Your task to perform on an android device: move a message to another label in the gmail app Image 0: 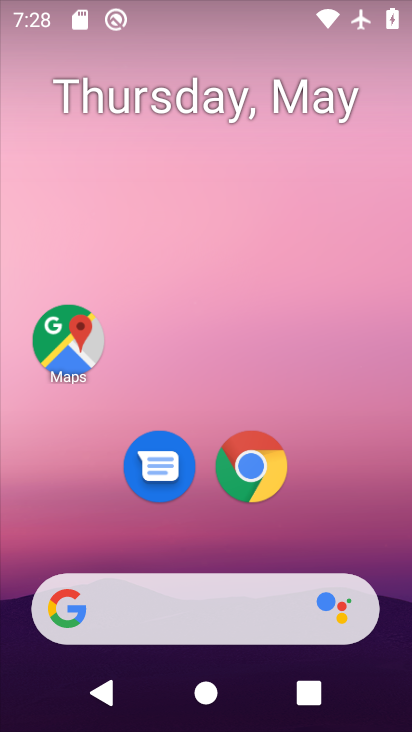
Step 0: drag from (351, 528) to (245, 4)
Your task to perform on an android device: move a message to another label in the gmail app Image 1: 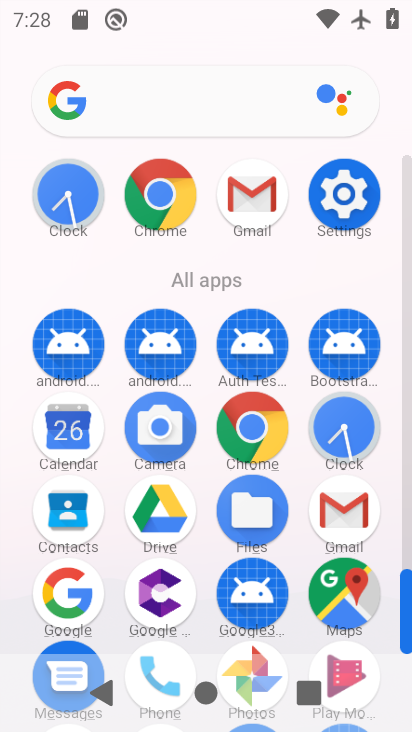
Step 1: click (271, 210)
Your task to perform on an android device: move a message to another label in the gmail app Image 2: 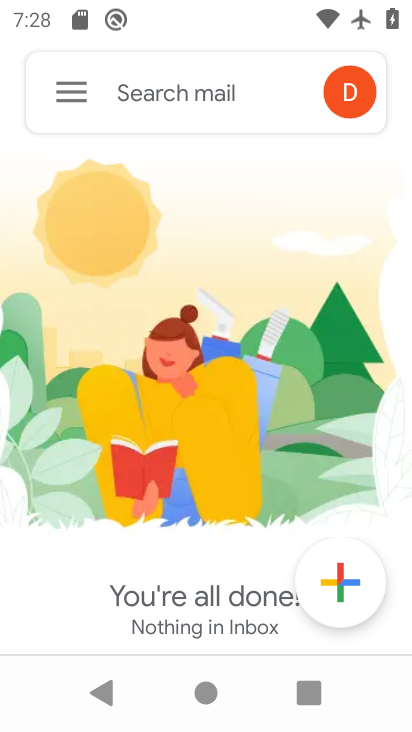
Step 2: click (69, 91)
Your task to perform on an android device: move a message to another label in the gmail app Image 3: 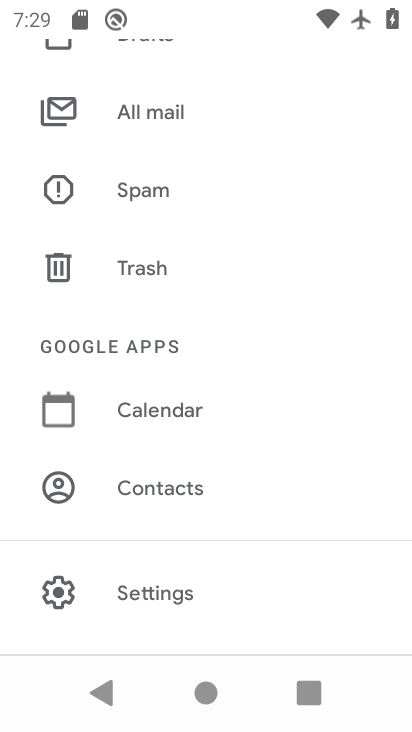
Step 3: click (173, 124)
Your task to perform on an android device: move a message to another label in the gmail app Image 4: 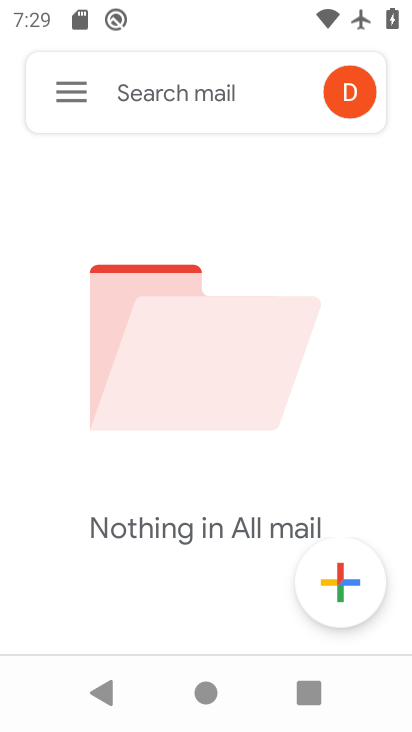
Step 4: click (92, 83)
Your task to perform on an android device: move a message to another label in the gmail app Image 5: 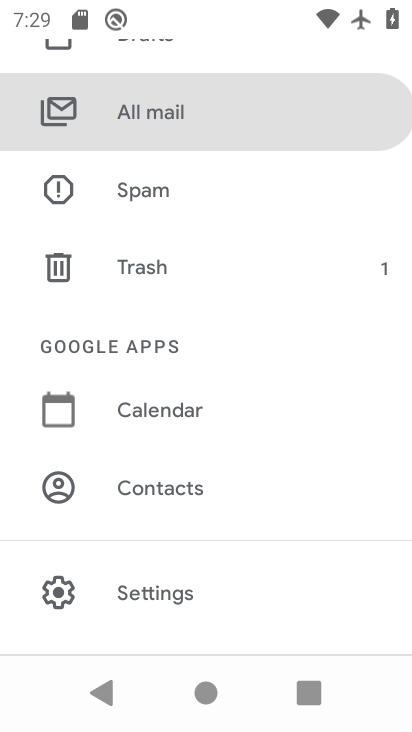
Step 5: click (179, 276)
Your task to perform on an android device: move a message to another label in the gmail app Image 6: 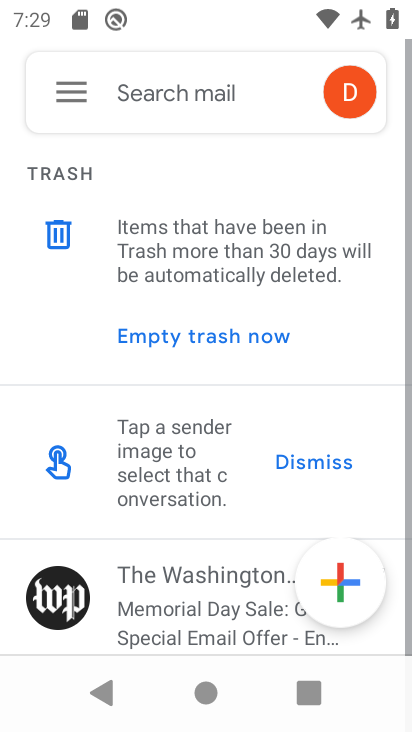
Step 6: click (179, 276)
Your task to perform on an android device: move a message to another label in the gmail app Image 7: 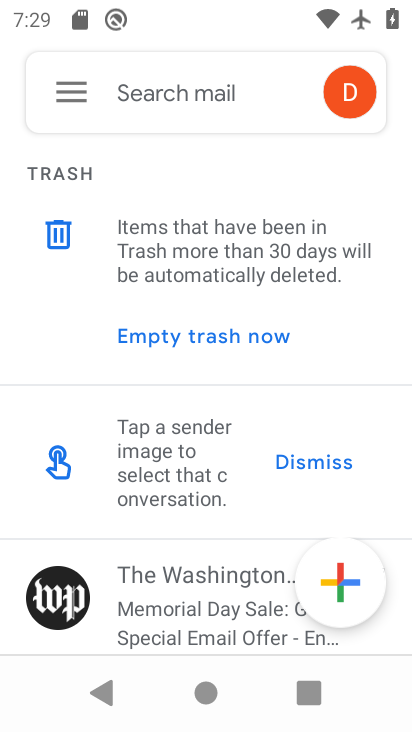
Step 7: click (176, 597)
Your task to perform on an android device: move a message to another label in the gmail app Image 8: 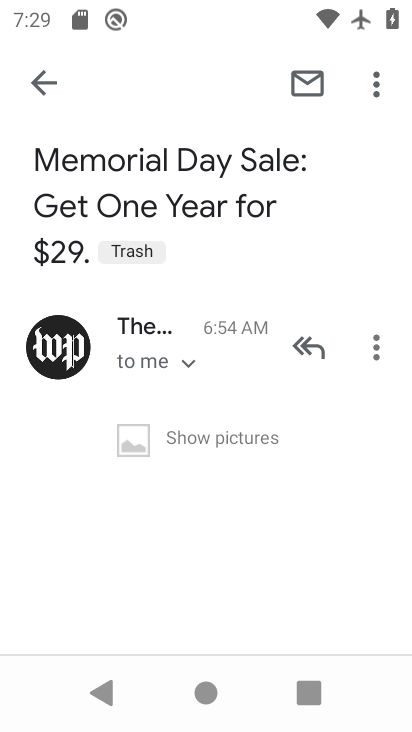
Step 8: click (373, 97)
Your task to perform on an android device: move a message to another label in the gmail app Image 9: 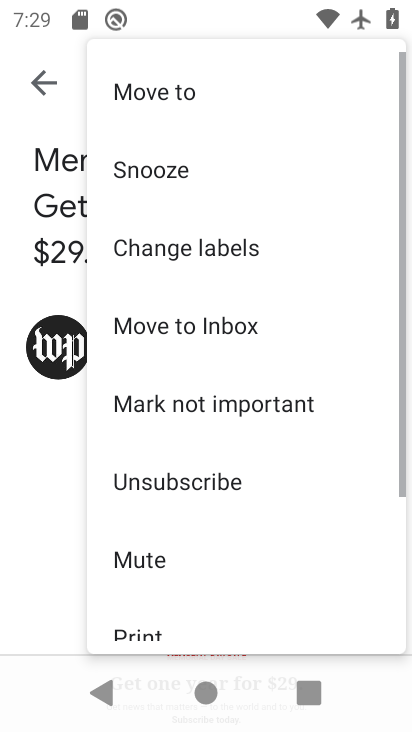
Step 9: click (238, 244)
Your task to perform on an android device: move a message to another label in the gmail app Image 10: 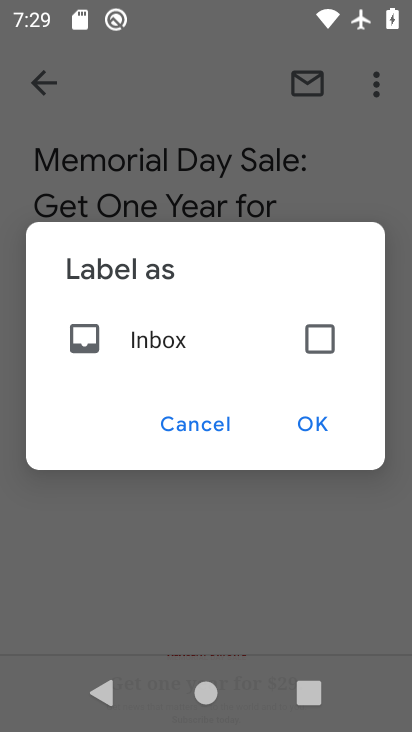
Step 10: click (340, 328)
Your task to perform on an android device: move a message to another label in the gmail app Image 11: 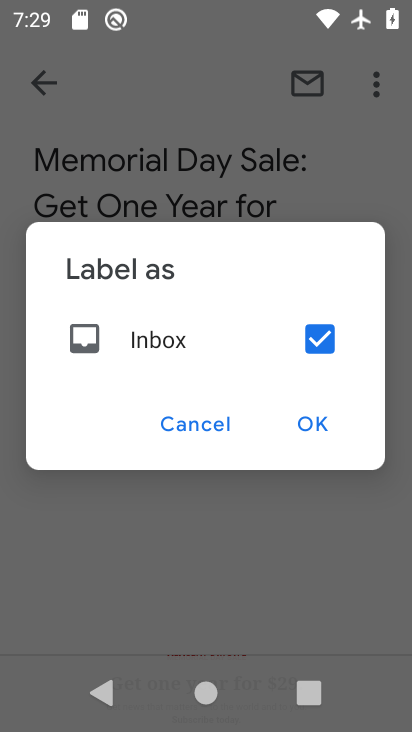
Step 11: click (323, 434)
Your task to perform on an android device: move a message to another label in the gmail app Image 12: 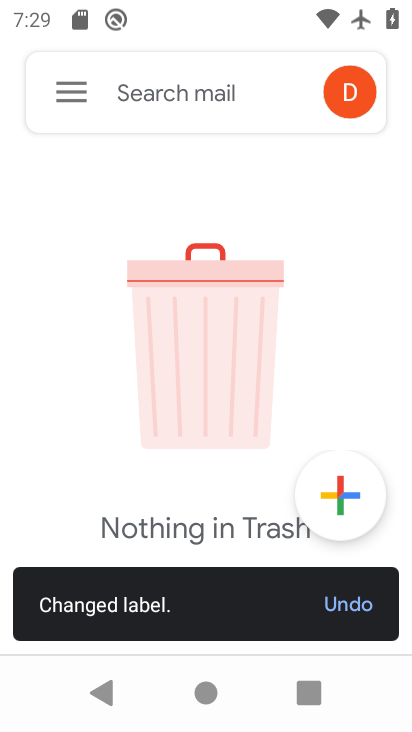
Step 12: task complete